Your task to perform on an android device: Go to location settings Image 0: 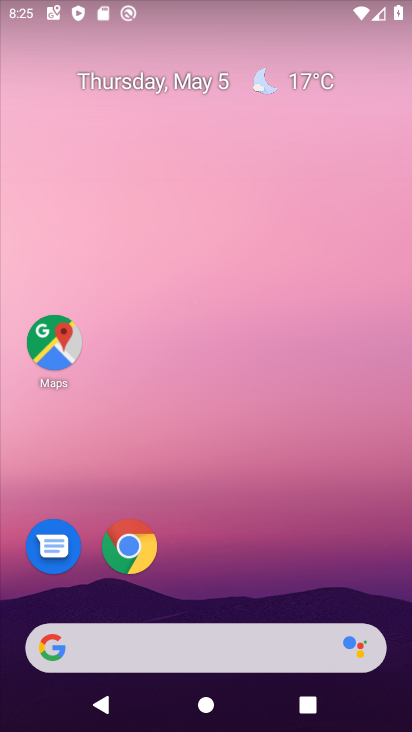
Step 0: drag from (181, 643) to (306, 175)
Your task to perform on an android device: Go to location settings Image 1: 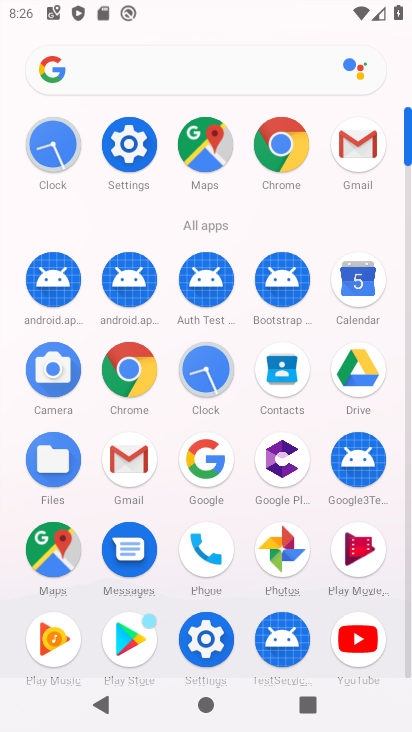
Step 1: click (131, 156)
Your task to perform on an android device: Go to location settings Image 2: 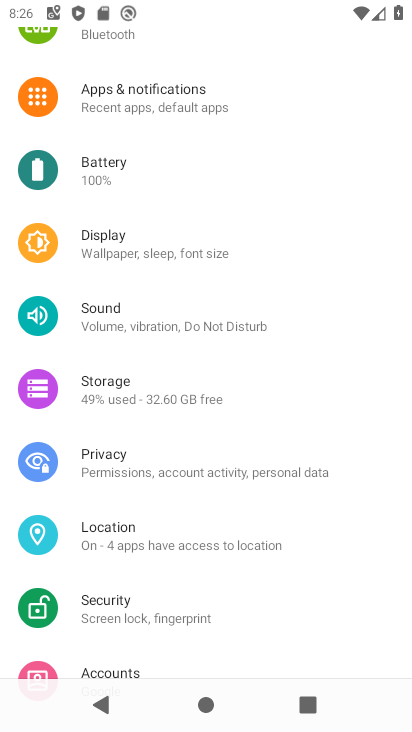
Step 2: click (171, 544)
Your task to perform on an android device: Go to location settings Image 3: 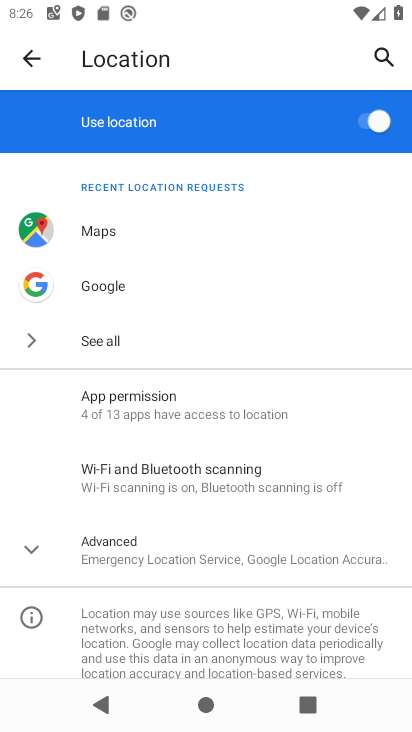
Step 3: task complete